Your task to perform on an android device: turn on showing notifications on the lock screen Image 0: 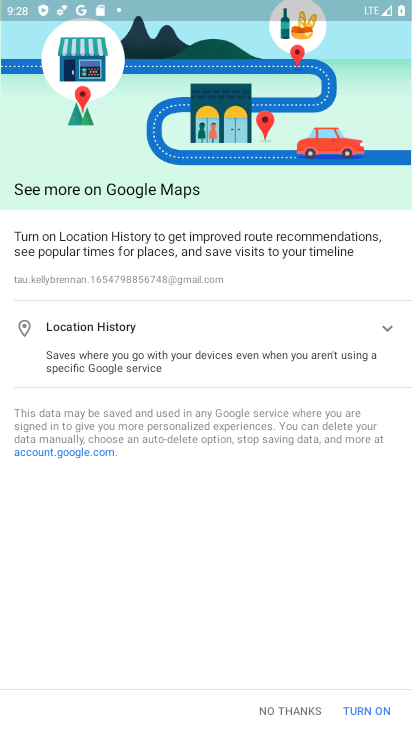
Step 0: press home button
Your task to perform on an android device: turn on showing notifications on the lock screen Image 1: 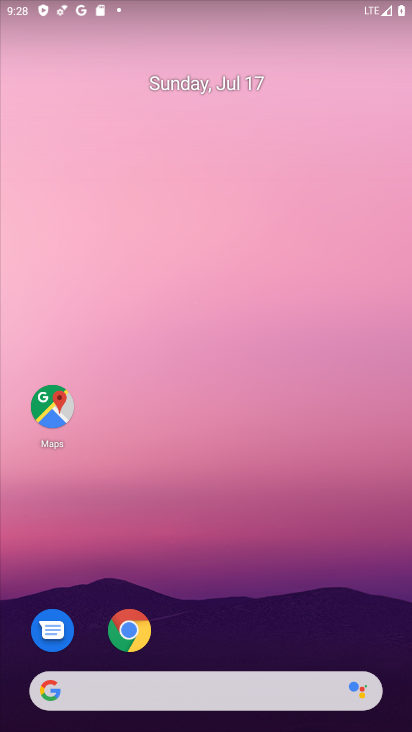
Step 1: drag from (204, 657) to (242, 136)
Your task to perform on an android device: turn on showing notifications on the lock screen Image 2: 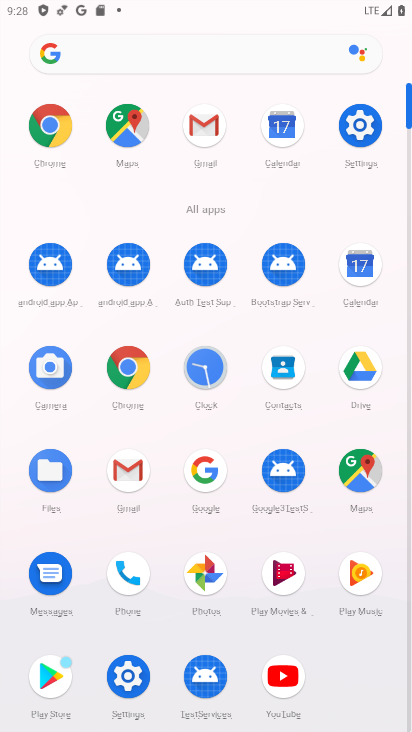
Step 2: click (362, 114)
Your task to perform on an android device: turn on showing notifications on the lock screen Image 3: 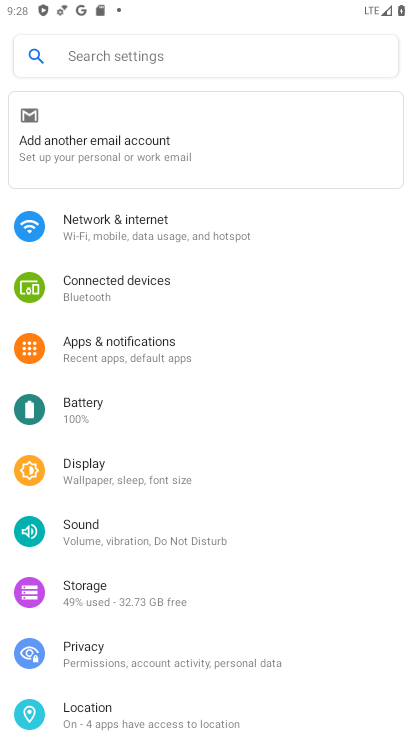
Step 3: click (156, 348)
Your task to perform on an android device: turn on showing notifications on the lock screen Image 4: 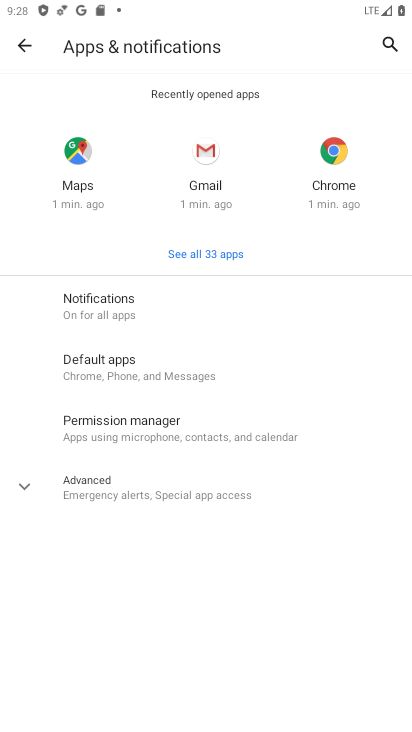
Step 4: click (148, 307)
Your task to perform on an android device: turn on showing notifications on the lock screen Image 5: 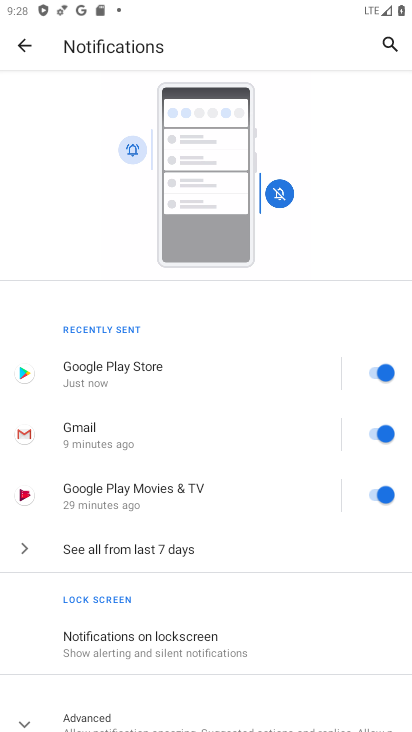
Step 5: click (197, 645)
Your task to perform on an android device: turn on showing notifications on the lock screen Image 6: 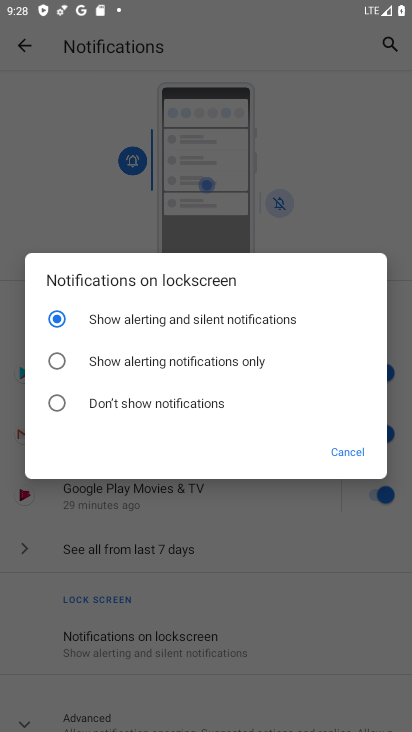
Step 6: click (59, 357)
Your task to perform on an android device: turn on showing notifications on the lock screen Image 7: 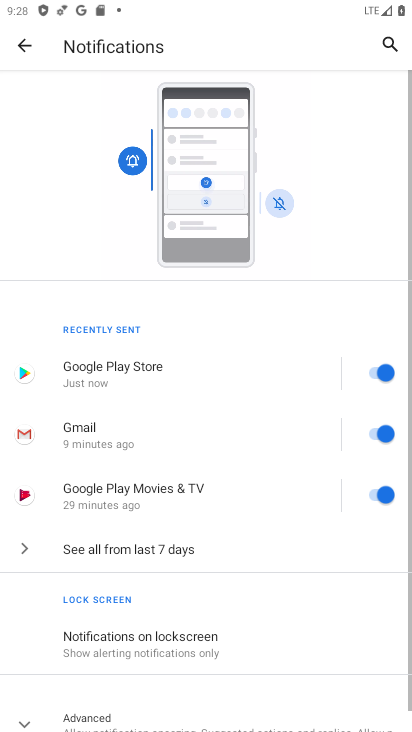
Step 7: task complete